Your task to perform on an android device: Open CNN.com Image 0: 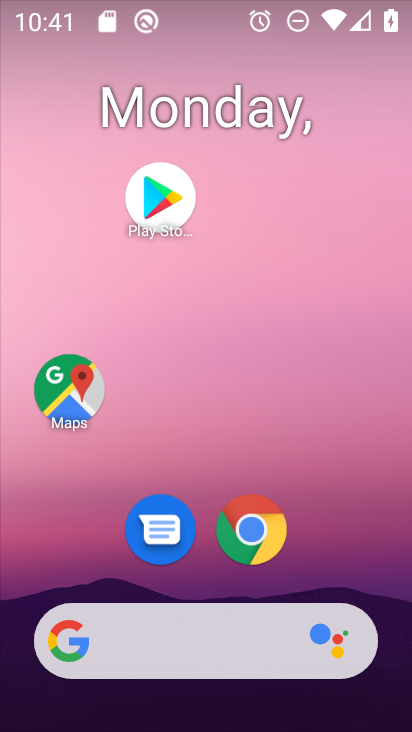
Step 0: click (245, 526)
Your task to perform on an android device: Open CNN.com Image 1: 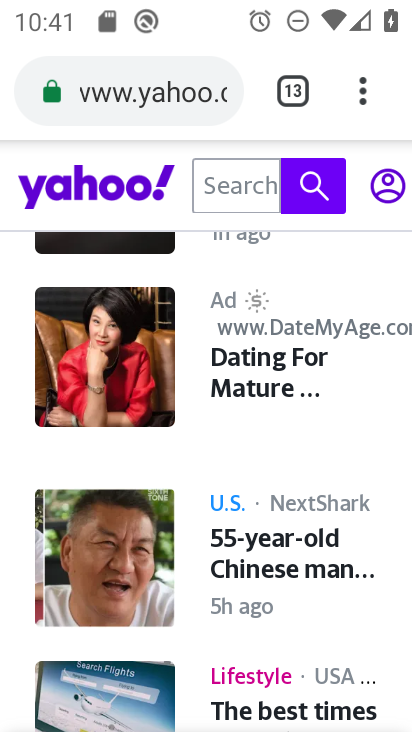
Step 1: click (364, 91)
Your task to perform on an android device: Open CNN.com Image 2: 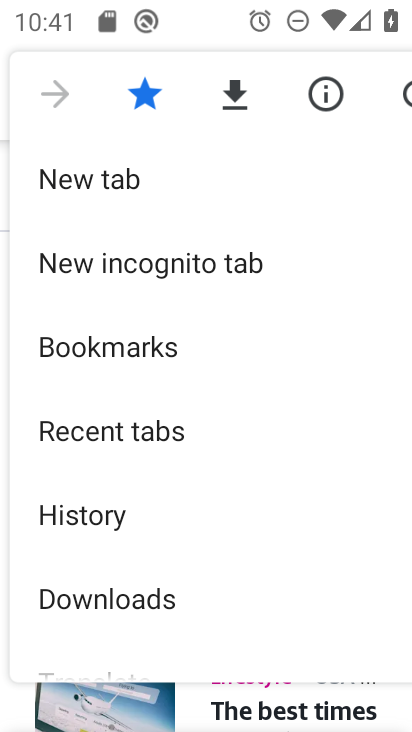
Step 2: click (97, 177)
Your task to perform on an android device: Open CNN.com Image 3: 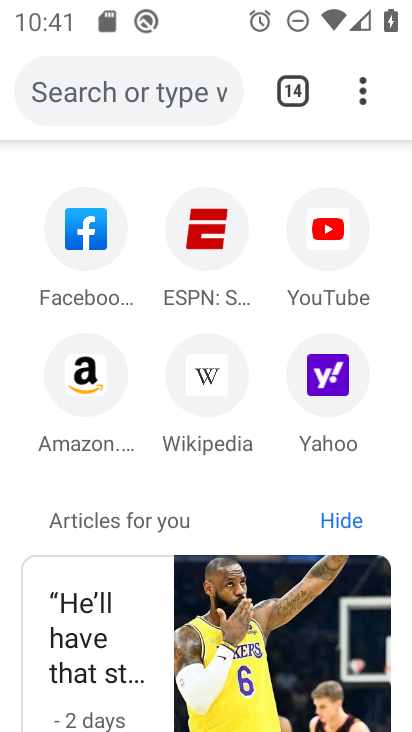
Step 3: click (148, 84)
Your task to perform on an android device: Open CNN.com Image 4: 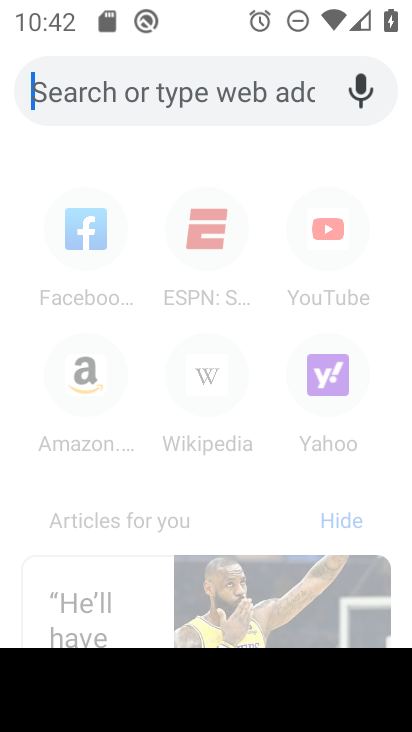
Step 4: type "cnn.com"
Your task to perform on an android device: Open CNN.com Image 5: 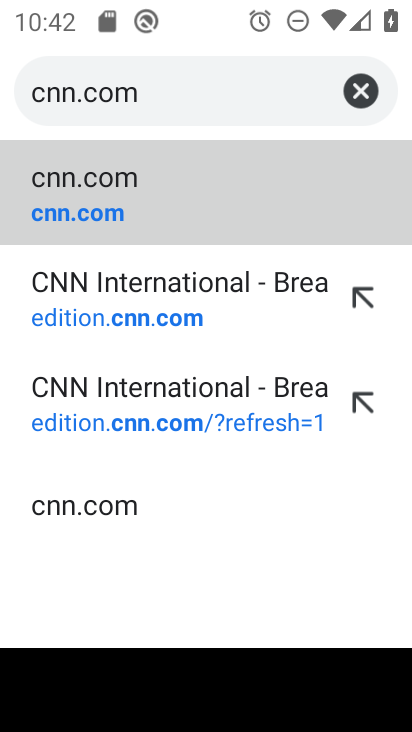
Step 5: click (109, 193)
Your task to perform on an android device: Open CNN.com Image 6: 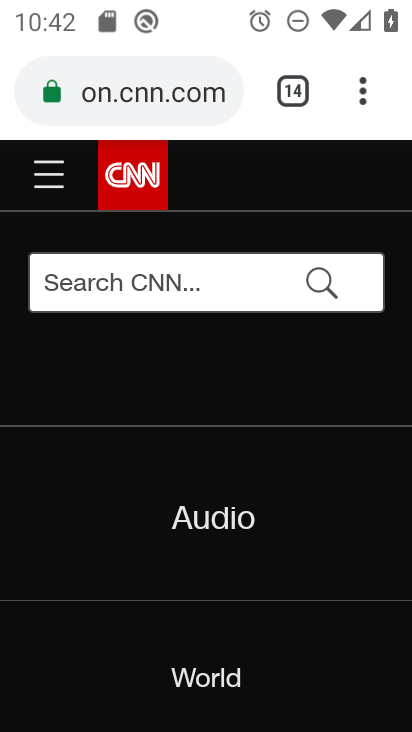
Step 6: task complete